Your task to perform on an android device: toggle wifi Image 0: 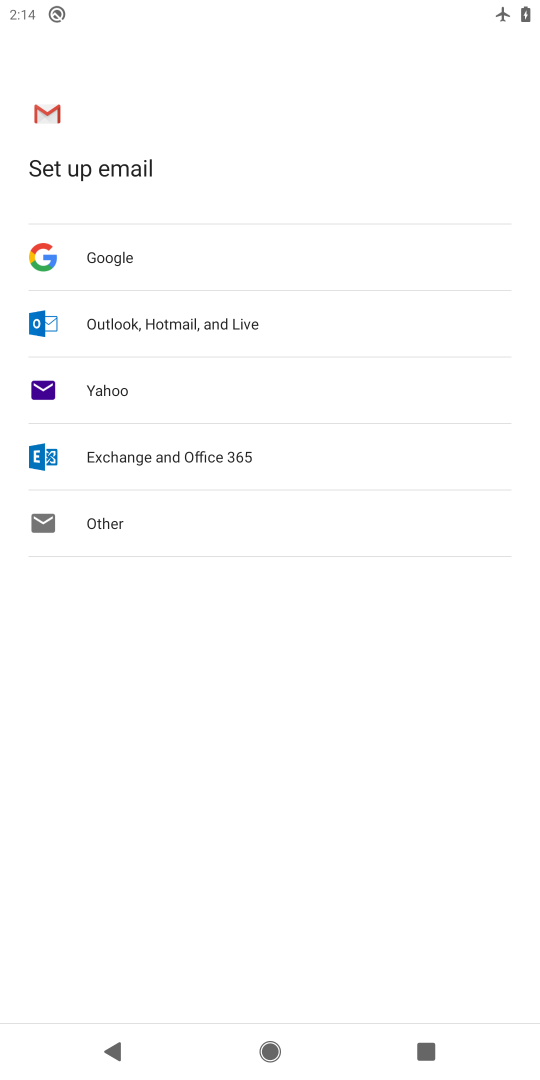
Step 0: press home button
Your task to perform on an android device: toggle wifi Image 1: 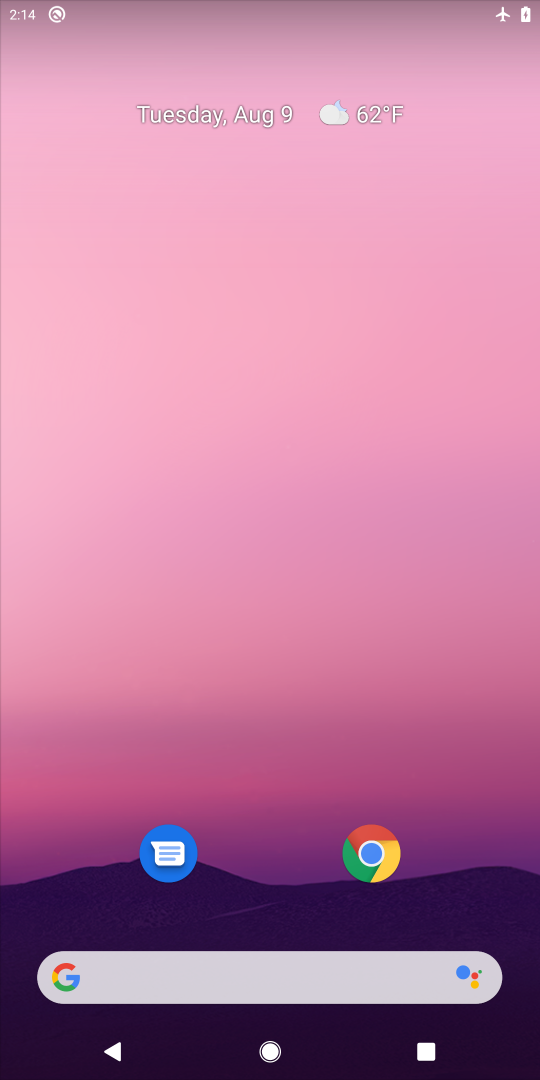
Step 1: drag from (283, 880) to (271, 310)
Your task to perform on an android device: toggle wifi Image 2: 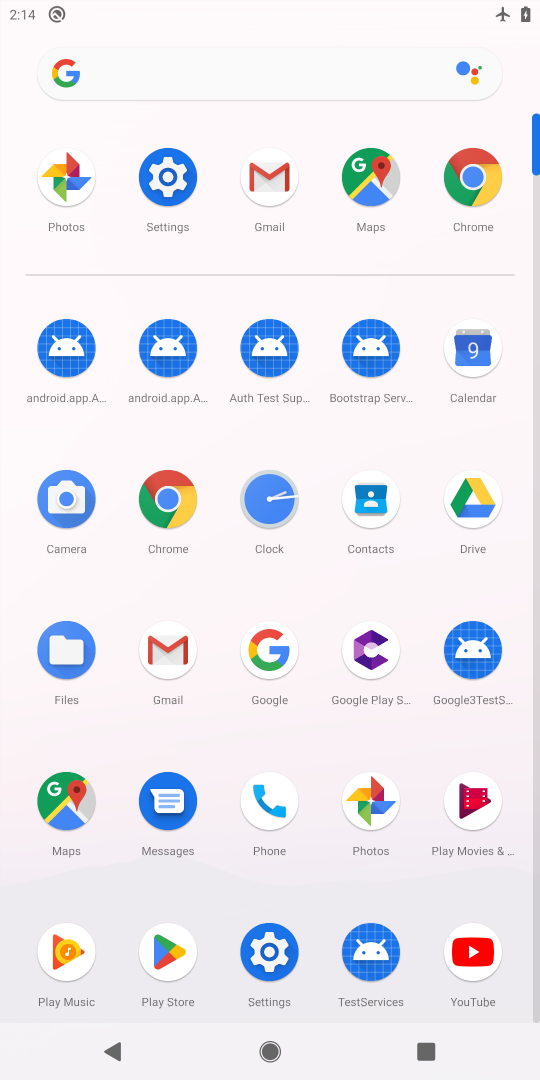
Step 2: click (177, 176)
Your task to perform on an android device: toggle wifi Image 3: 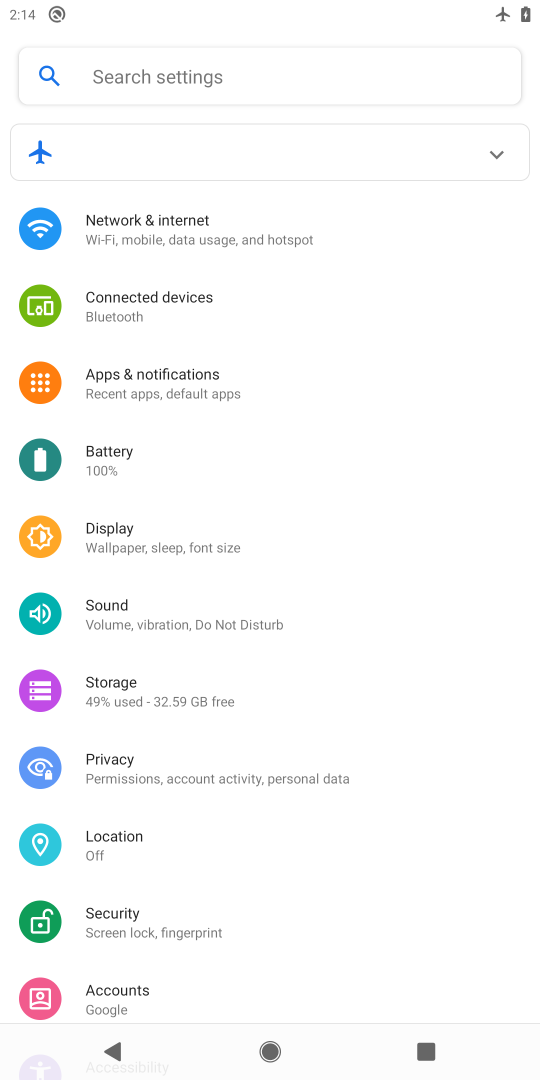
Step 3: click (211, 247)
Your task to perform on an android device: toggle wifi Image 4: 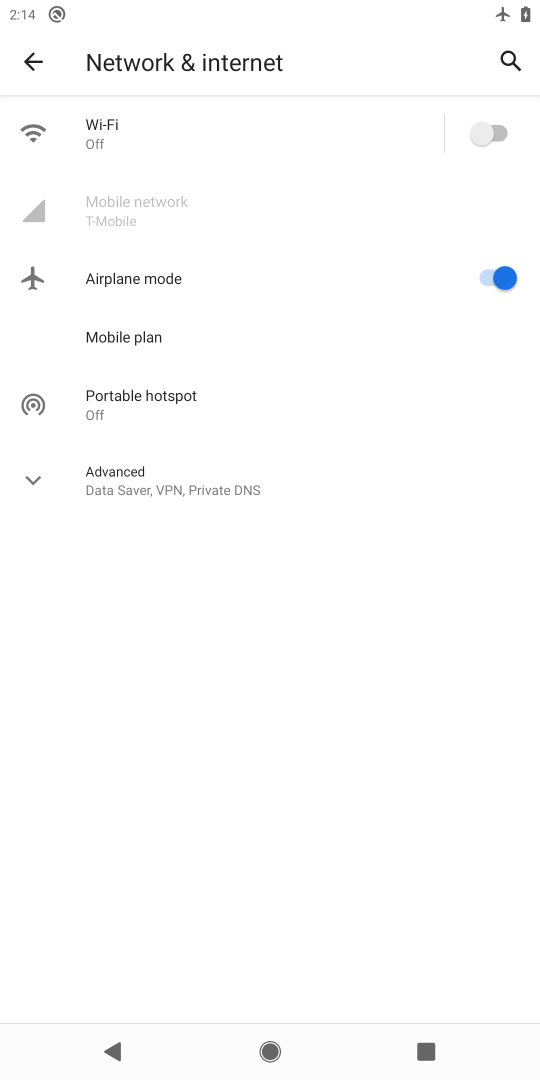
Step 4: click (496, 130)
Your task to perform on an android device: toggle wifi Image 5: 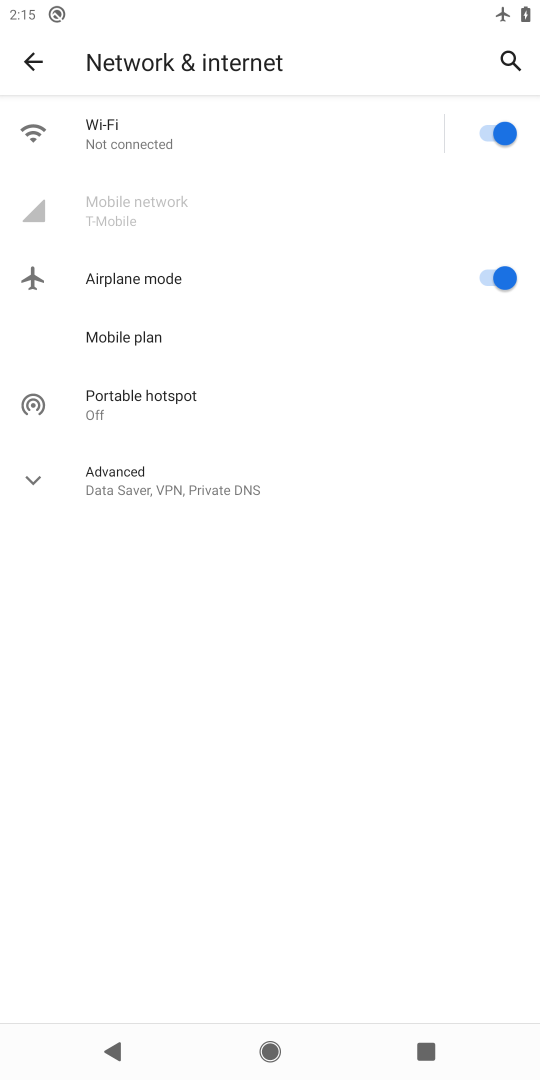
Step 5: task complete